Your task to perform on an android device: Open Google Chrome and click the shortcut for Amazon.com Image 0: 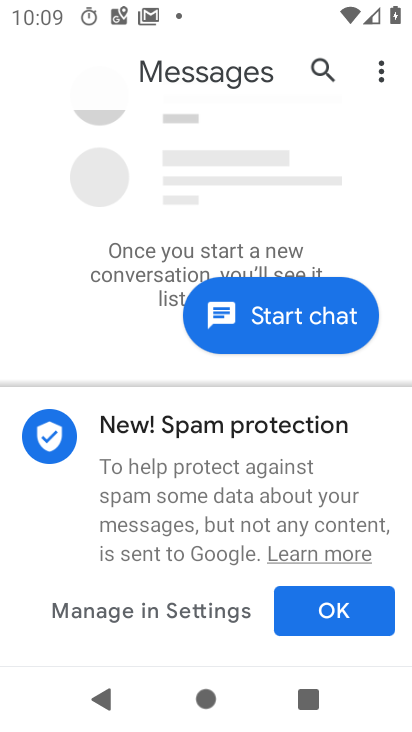
Step 0: press home button
Your task to perform on an android device: Open Google Chrome and click the shortcut for Amazon.com Image 1: 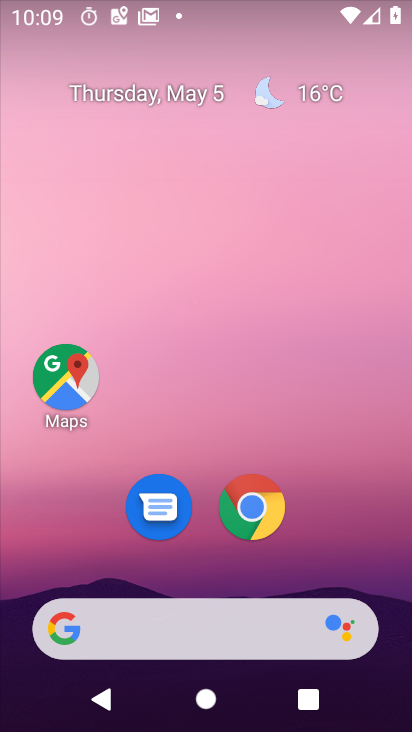
Step 1: click (249, 507)
Your task to perform on an android device: Open Google Chrome and click the shortcut for Amazon.com Image 2: 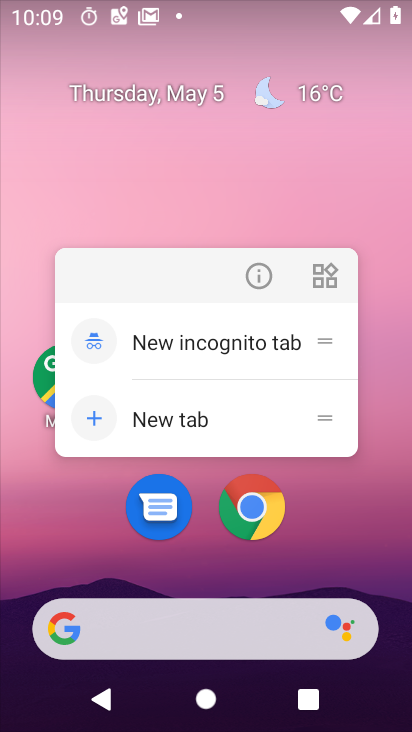
Step 2: click (259, 281)
Your task to perform on an android device: Open Google Chrome and click the shortcut for Amazon.com Image 3: 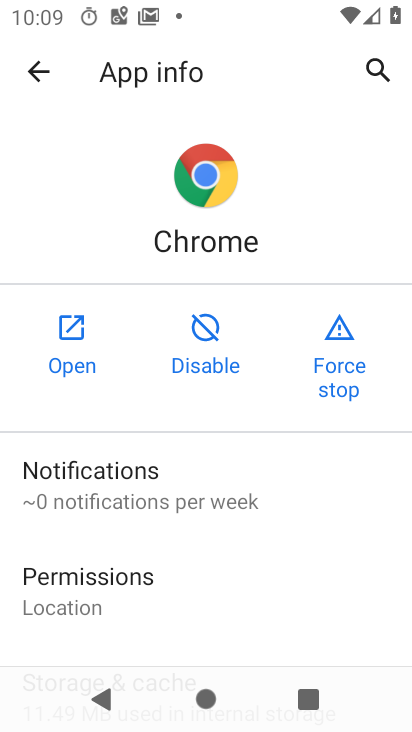
Step 3: click (77, 360)
Your task to perform on an android device: Open Google Chrome and click the shortcut for Amazon.com Image 4: 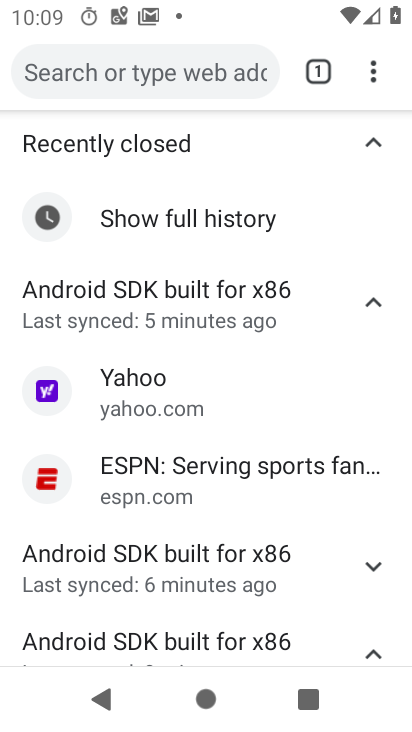
Step 4: click (117, 73)
Your task to perform on an android device: Open Google Chrome and click the shortcut for Amazon.com Image 5: 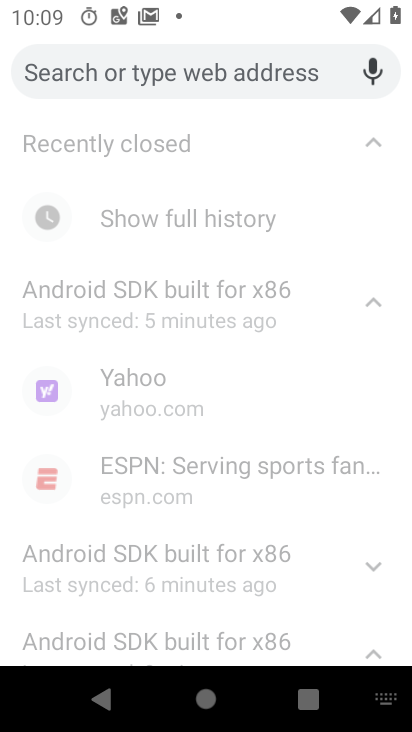
Step 5: type "amazon.com"
Your task to perform on an android device: Open Google Chrome and click the shortcut for Amazon.com Image 6: 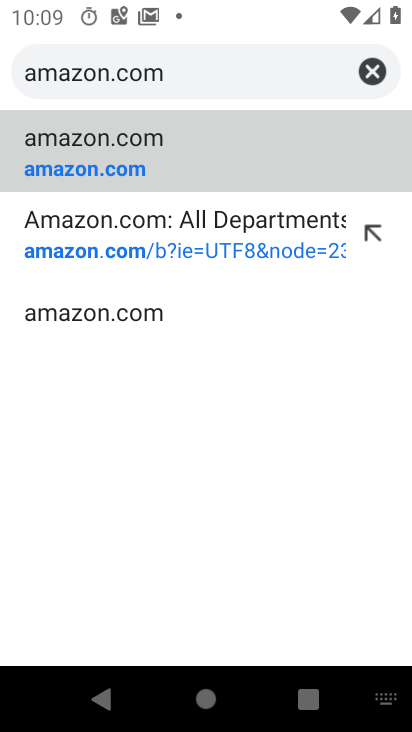
Step 6: click (109, 174)
Your task to perform on an android device: Open Google Chrome and click the shortcut for Amazon.com Image 7: 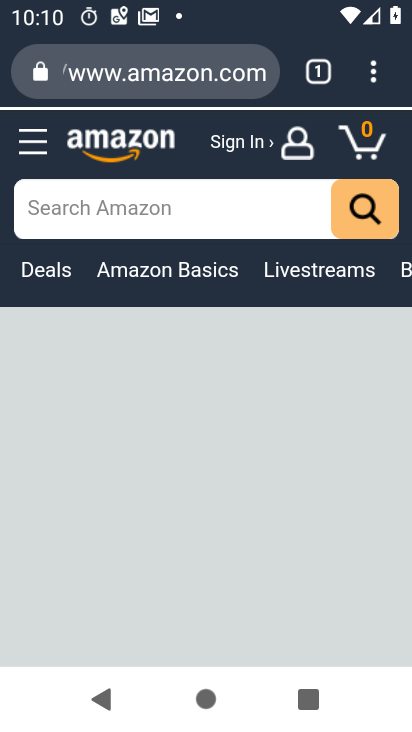
Step 7: click (375, 69)
Your task to perform on an android device: Open Google Chrome and click the shortcut for Amazon.com Image 8: 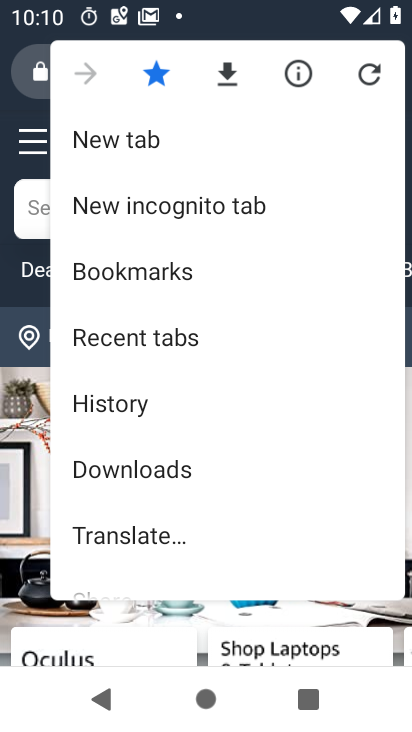
Step 8: task complete